Your task to perform on an android device: toggle wifi Image 0: 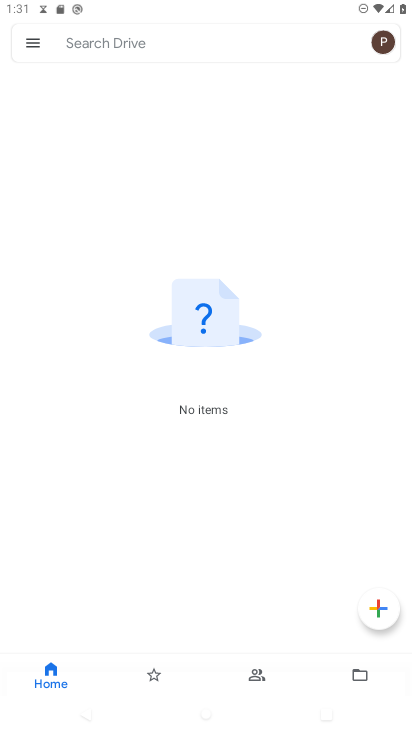
Step 0: press home button
Your task to perform on an android device: toggle wifi Image 1: 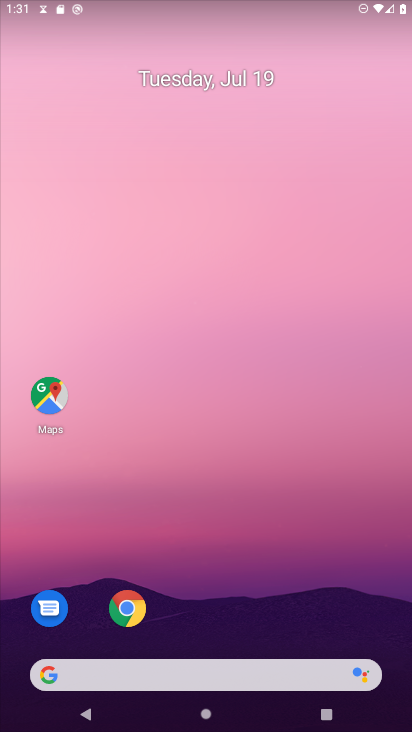
Step 1: drag from (300, 678) to (278, 22)
Your task to perform on an android device: toggle wifi Image 2: 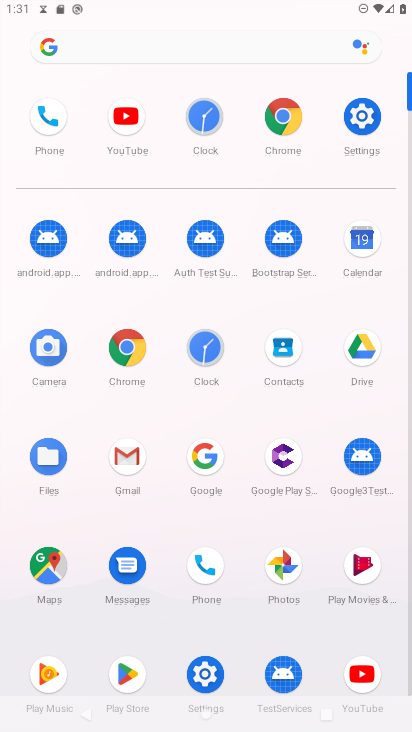
Step 2: click (360, 113)
Your task to perform on an android device: toggle wifi Image 3: 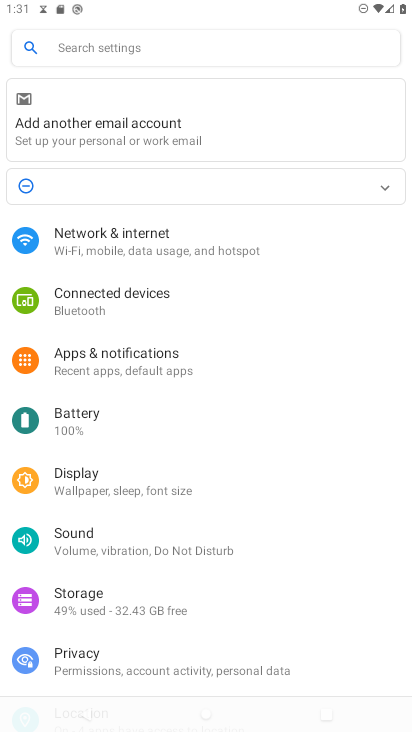
Step 3: click (185, 254)
Your task to perform on an android device: toggle wifi Image 4: 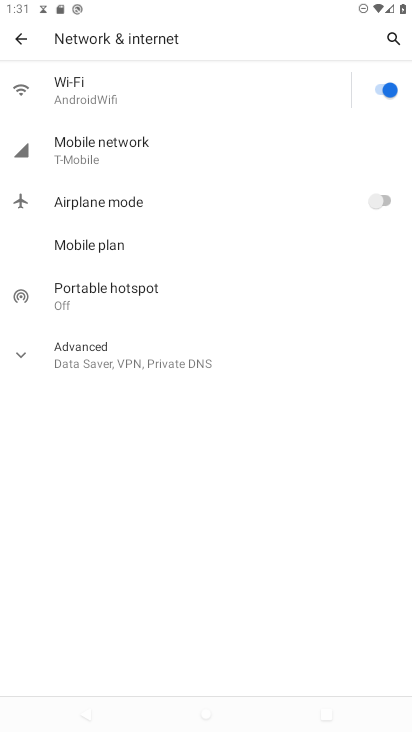
Step 4: click (152, 93)
Your task to perform on an android device: toggle wifi Image 5: 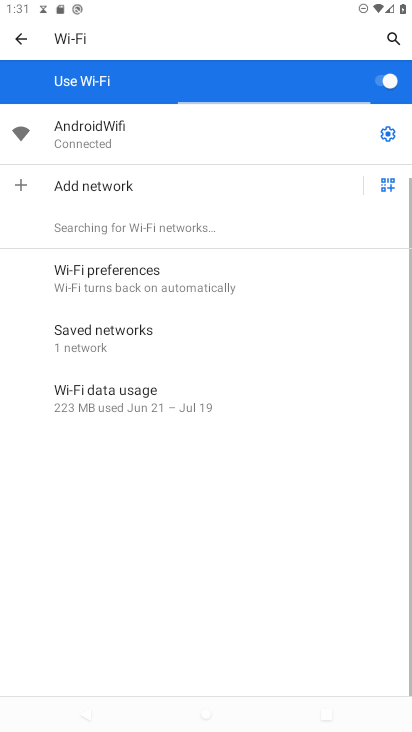
Step 5: click (380, 84)
Your task to perform on an android device: toggle wifi Image 6: 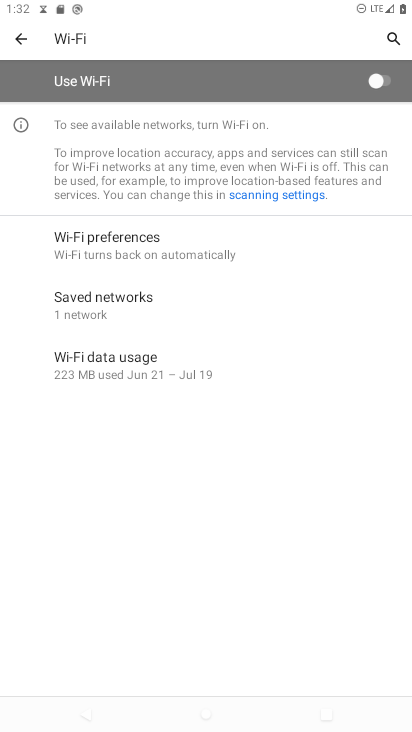
Step 6: task complete